Your task to perform on an android device: move a message to another label in the gmail app Image 0: 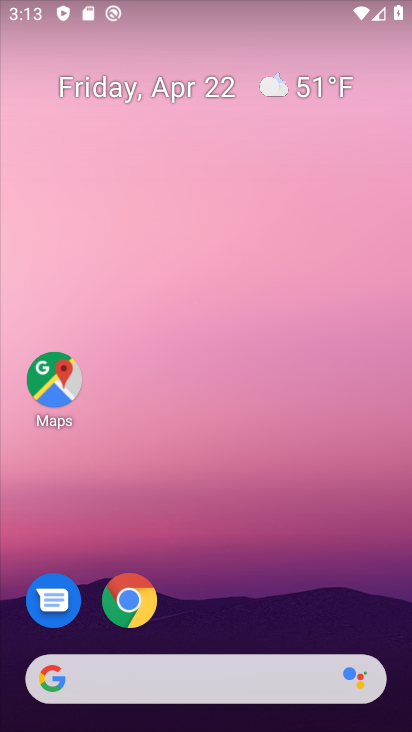
Step 0: drag from (197, 554) to (133, 1)
Your task to perform on an android device: move a message to another label in the gmail app Image 1: 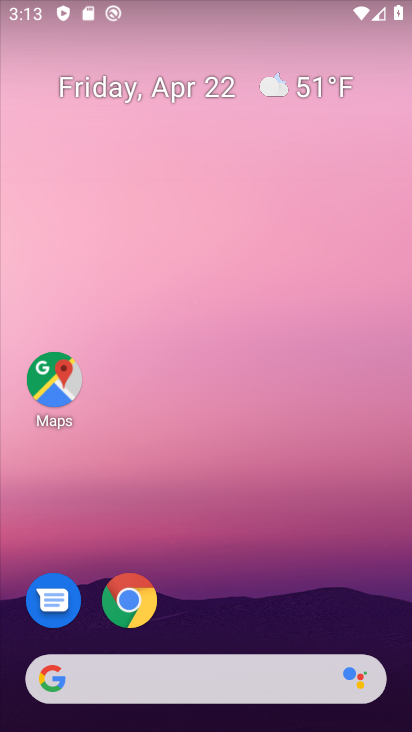
Step 1: drag from (197, 392) to (134, 136)
Your task to perform on an android device: move a message to another label in the gmail app Image 2: 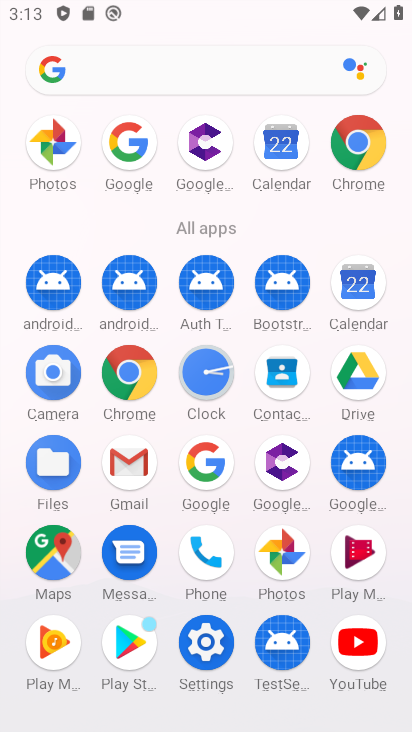
Step 2: drag from (209, 364) to (164, 78)
Your task to perform on an android device: move a message to another label in the gmail app Image 3: 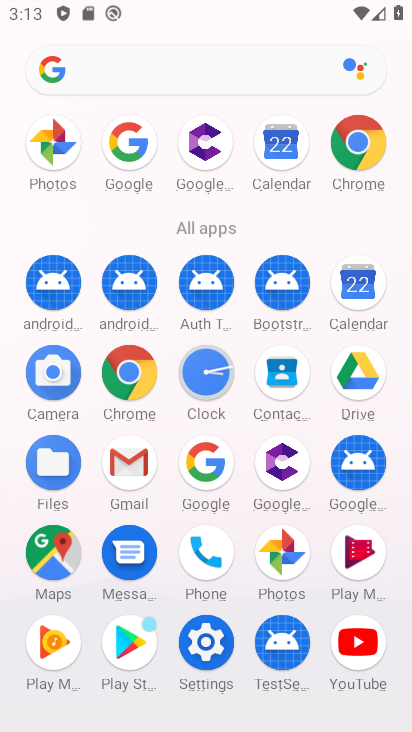
Step 3: click (136, 462)
Your task to perform on an android device: move a message to another label in the gmail app Image 4: 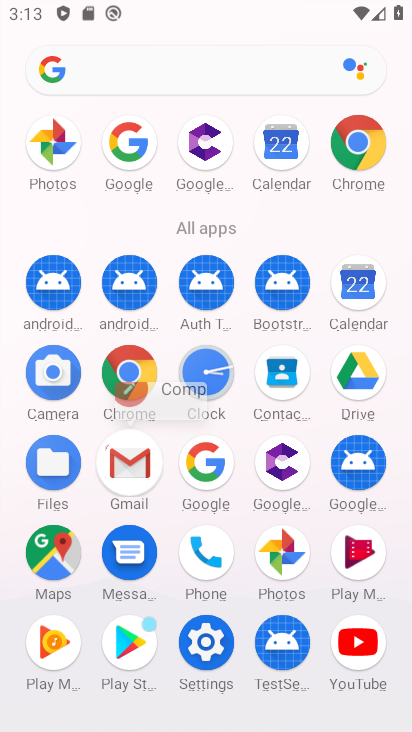
Step 4: click (110, 445)
Your task to perform on an android device: move a message to another label in the gmail app Image 5: 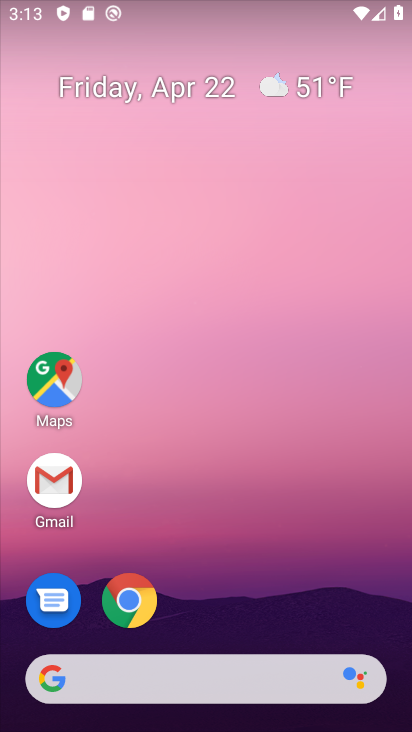
Step 5: drag from (229, 561) to (192, 166)
Your task to perform on an android device: move a message to another label in the gmail app Image 6: 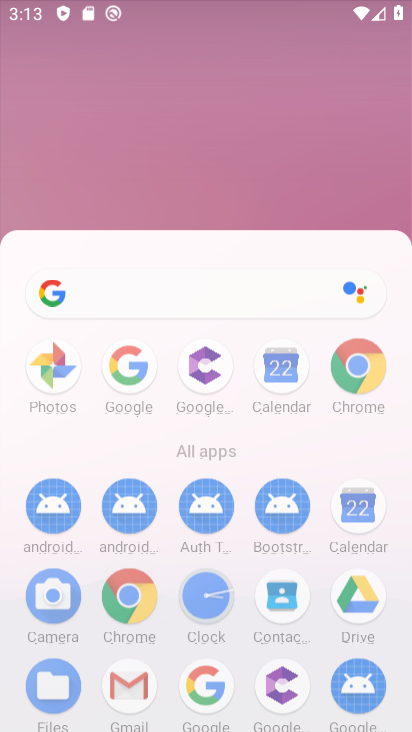
Step 6: drag from (279, 539) to (177, 135)
Your task to perform on an android device: move a message to another label in the gmail app Image 7: 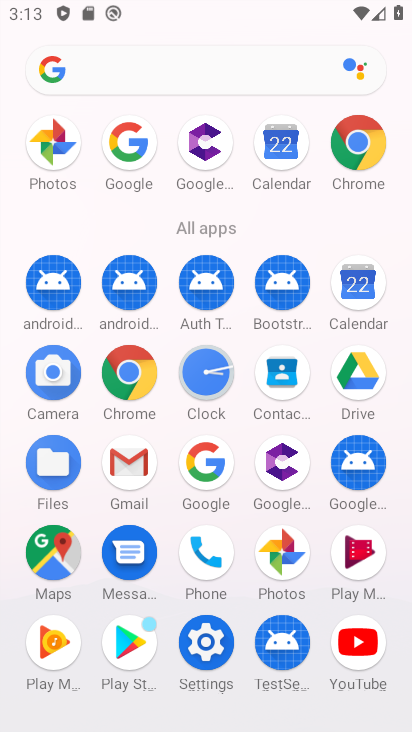
Step 7: click (117, 472)
Your task to perform on an android device: move a message to another label in the gmail app Image 8: 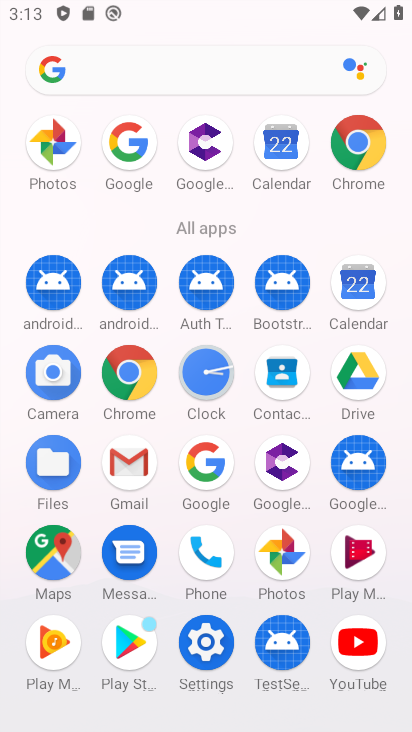
Step 8: click (117, 472)
Your task to perform on an android device: move a message to another label in the gmail app Image 9: 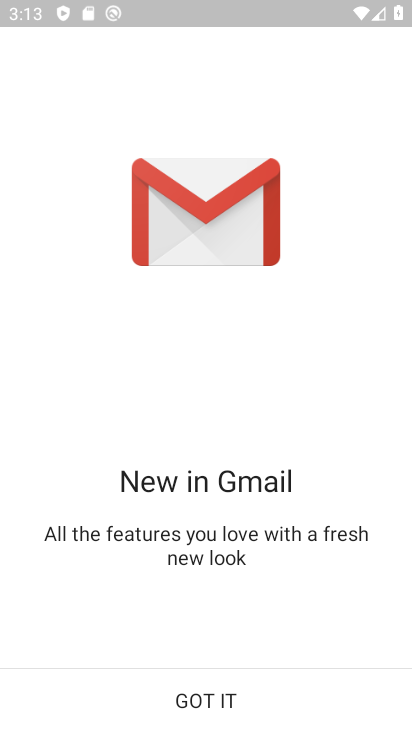
Step 9: click (215, 703)
Your task to perform on an android device: move a message to another label in the gmail app Image 10: 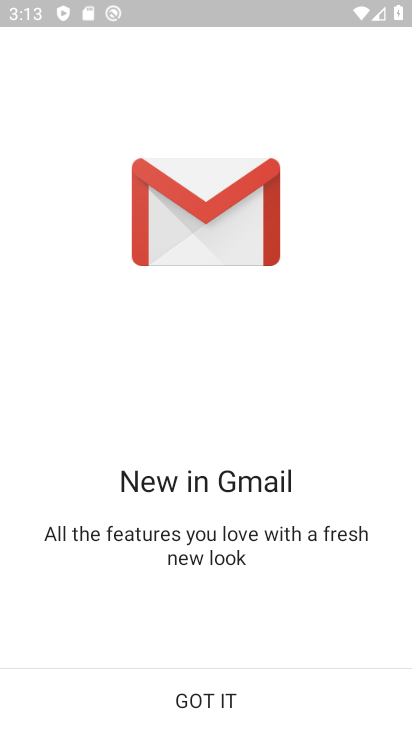
Step 10: click (219, 703)
Your task to perform on an android device: move a message to another label in the gmail app Image 11: 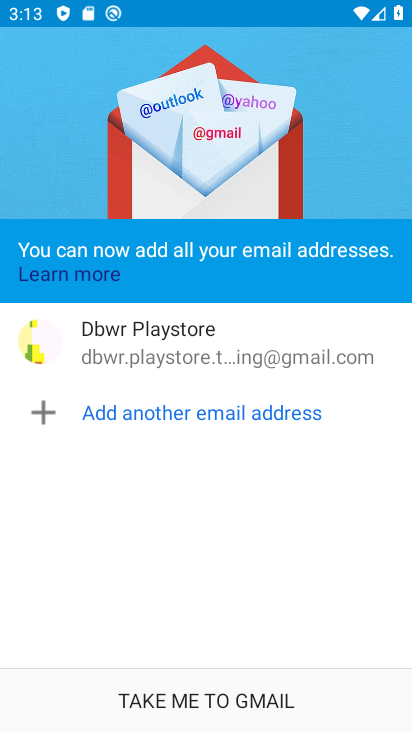
Step 11: click (219, 703)
Your task to perform on an android device: move a message to another label in the gmail app Image 12: 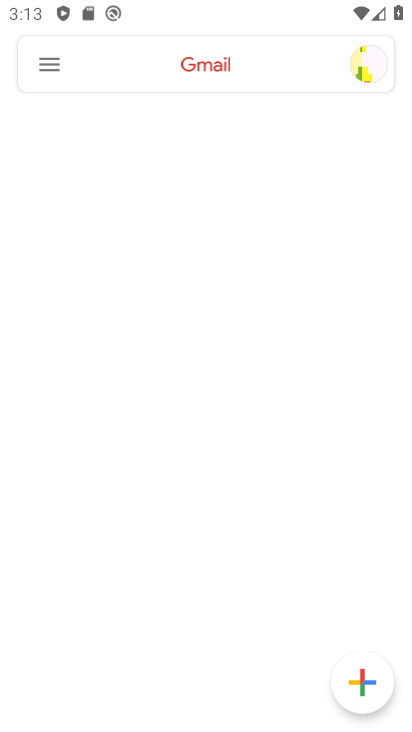
Step 12: click (221, 698)
Your task to perform on an android device: move a message to another label in the gmail app Image 13: 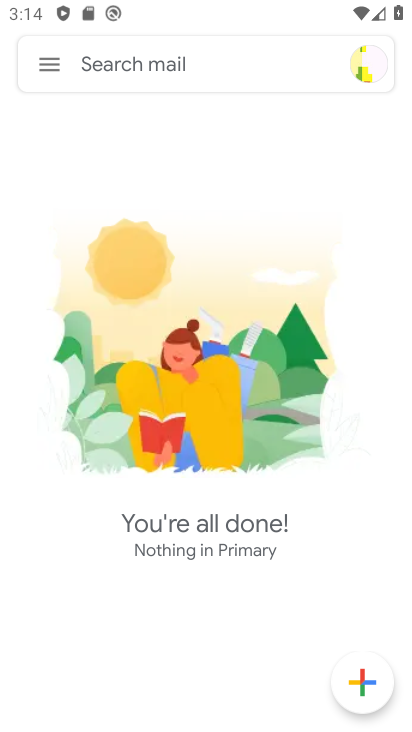
Step 13: click (43, 57)
Your task to perform on an android device: move a message to another label in the gmail app Image 14: 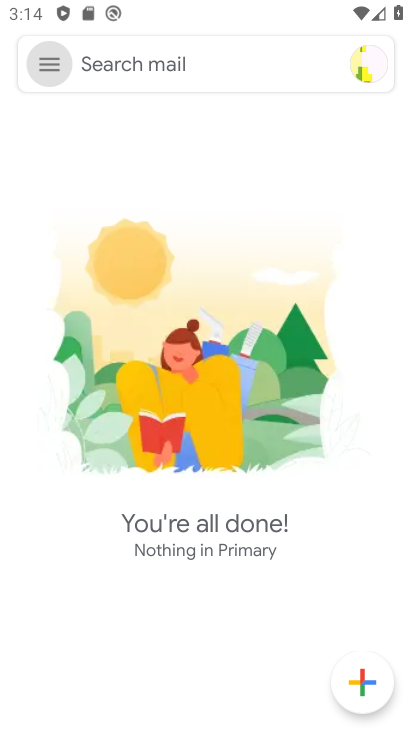
Step 14: click (43, 57)
Your task to perform on an android device: move a message to another label in the gmail app Image 15: 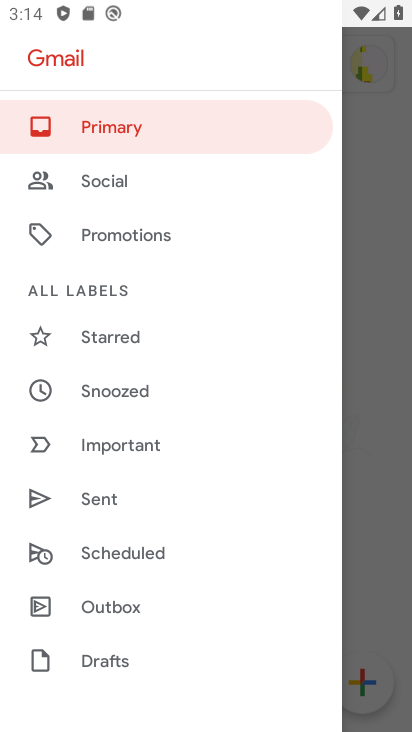
Step 15: drag from (183, 603) to (197, 208)
Your task to perform on an android device: move a message to another label in the gmail app Image 16: 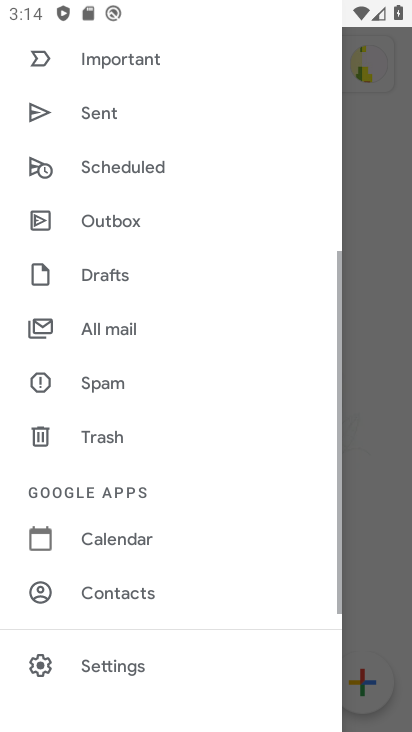
Step 16: drag from (208, 521) to (192, 89)
Your task to perform on an android device: move a message to another label in the gmail app Image 17: 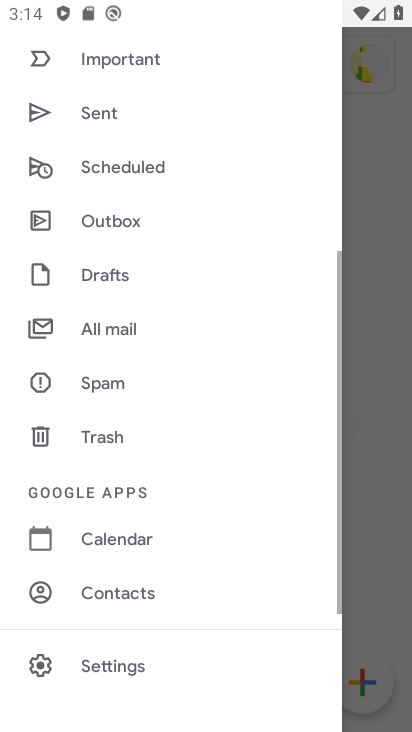
Step 17: click (108, 661)
Your task to perform on an android device: move a message to another label in the gmail app Image 18: 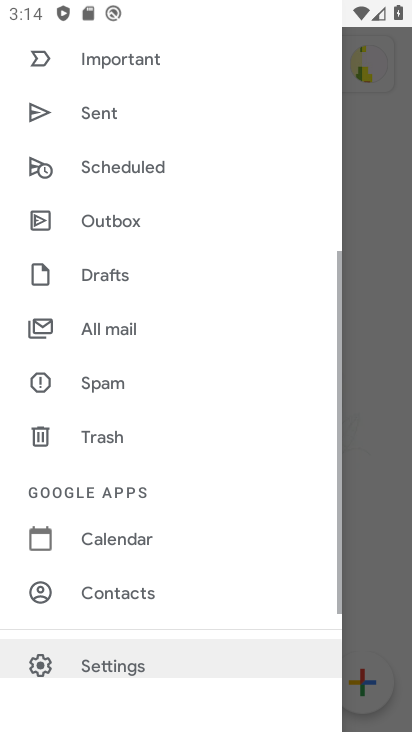
Step 18: click (110, 659)
Your task to perform on an android device: move a message to another label in the gmail app Image 19: 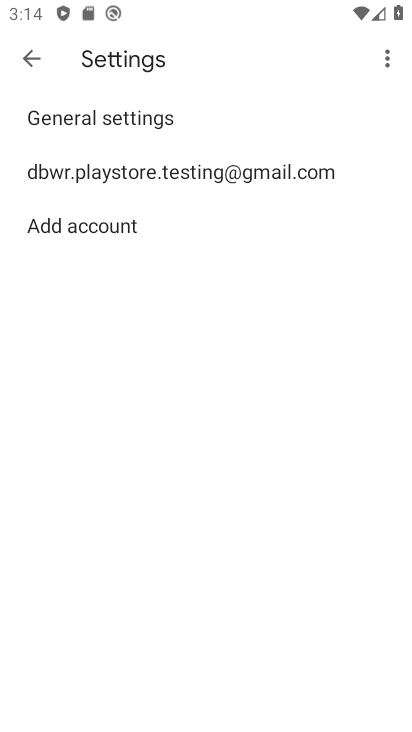
Step 19: click (139, 153)
Your task to perform on an android device: move a message to another label in the gmail app Image 20: 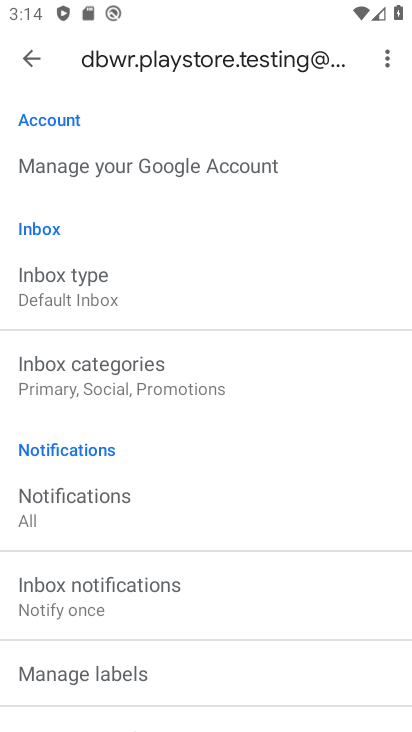
Step 20: click (34, 57)
Your task to perform on an android device: move a message to another label in the gmail app Image 21: 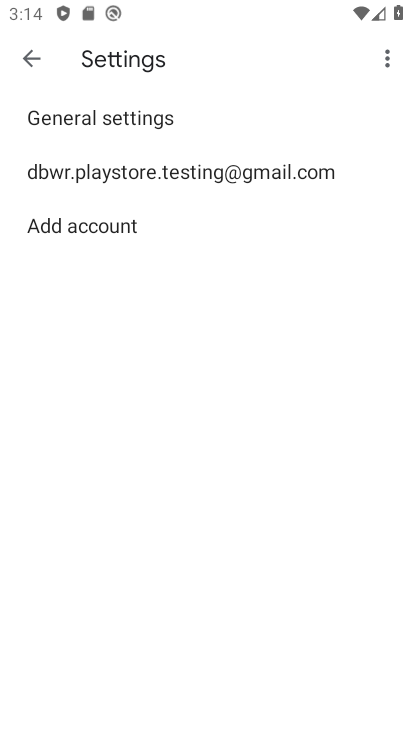
Step 21: click (26, 61)
Your task to perform on an android device: move a message to another label in the gmail app Image 22: 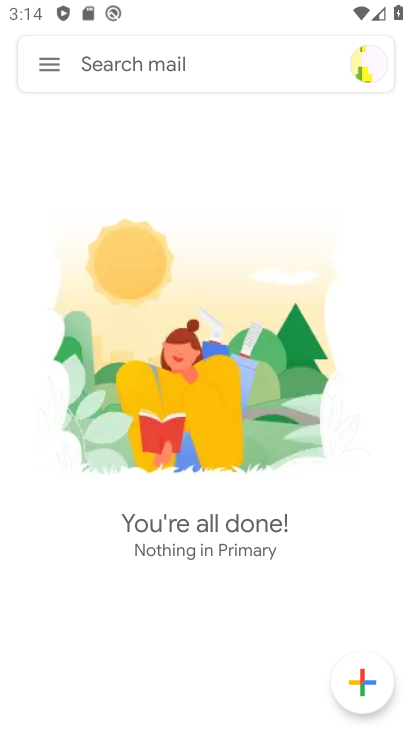
Step 22: click (37, 58)
Your task to perform on an android device: move a message to another label in the gmail app Image 23: 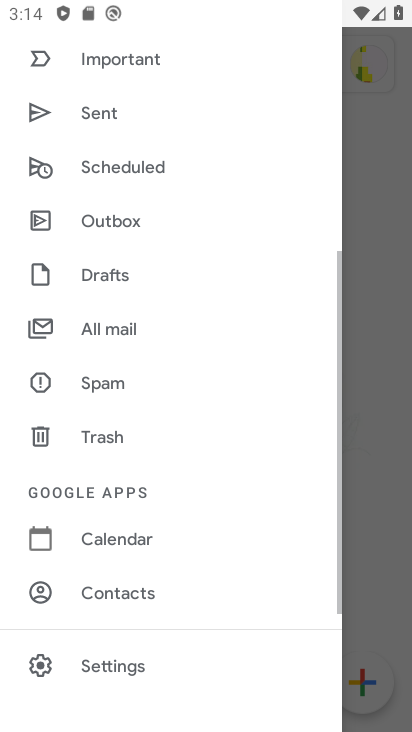
Step 23: click (131, 323)
Your task to perform on an android device: move a message to another label in the gmail app Image 24: 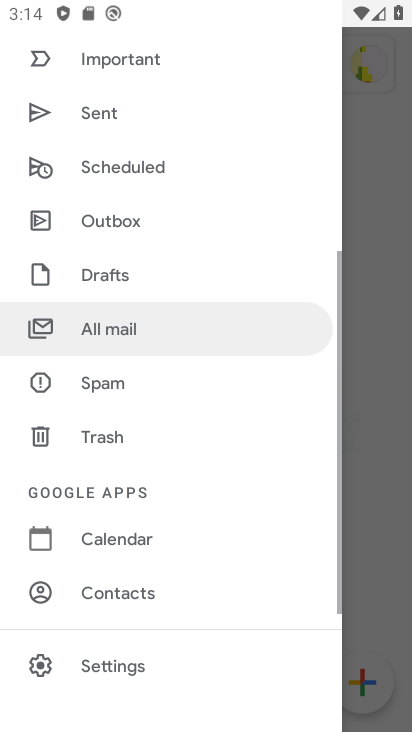
Step 24: click (130, 322)
Your task to perform on an android device: move a message to another label in the gmail app Image 25: 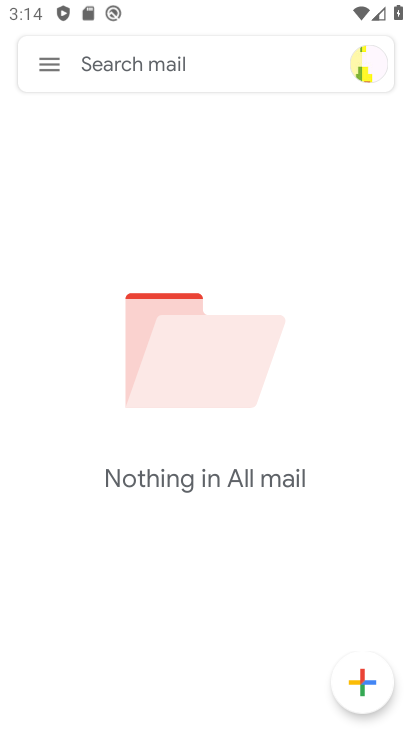
Step 25: task complete